Your task to perform on an android device: star an email in the gmail app Image 0: 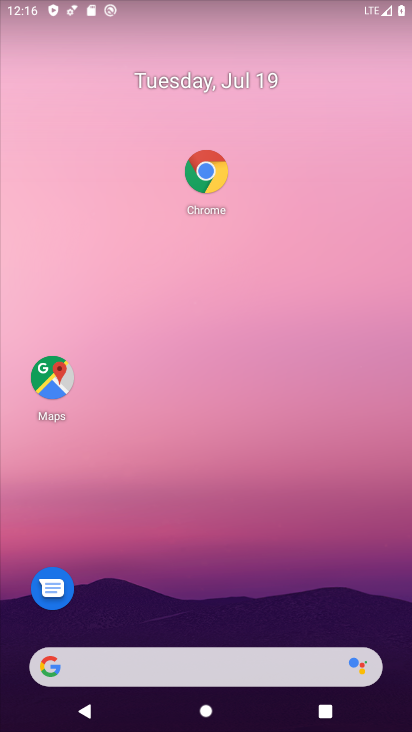
Step 0: drag from (179, 633) to (173, 133)
Your task to perform on an android device: star an email in the gmail app Image 1: 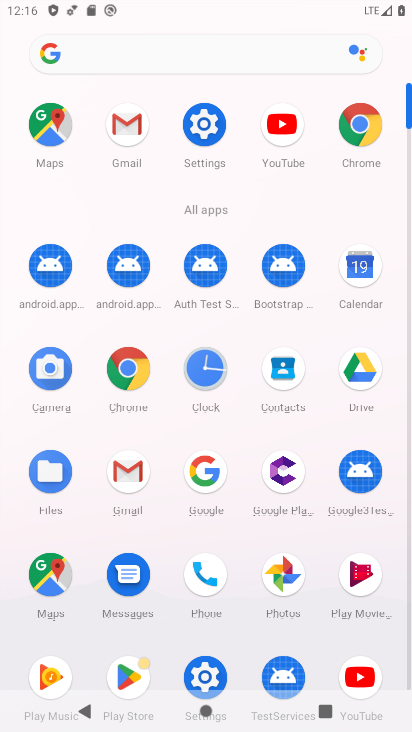
Step 1: click (141, 127)
Your task to perform on an android device: star an email in the gmail app Image 2: 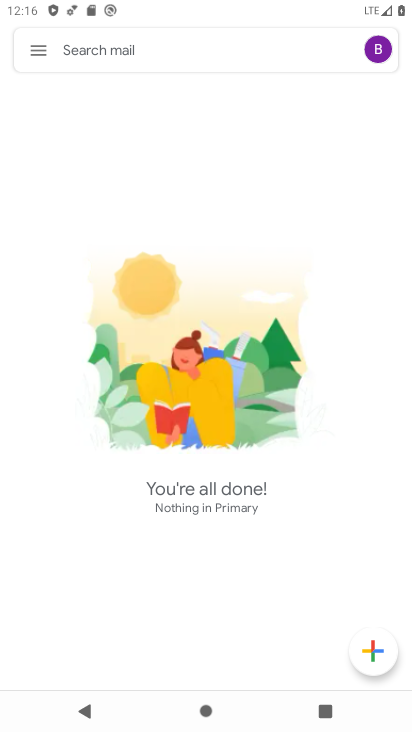
Step 2: click (52, 60)
Your task to perform on an android device: star an email in the gmail app Image 3: 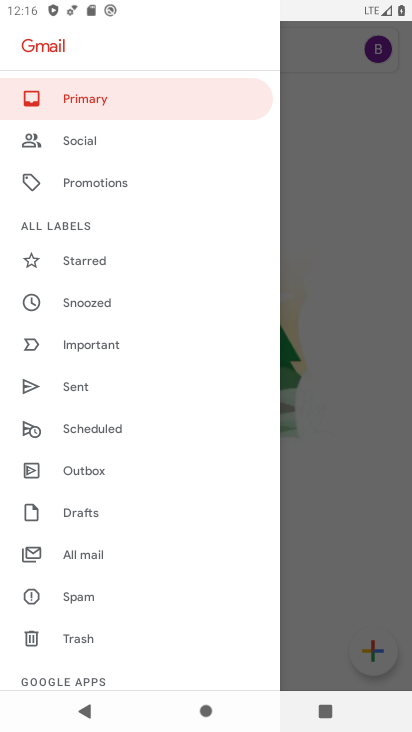
Step 3: click (106, 549)
Your task to perform on an android device: star an email in the gmail app Image 4: 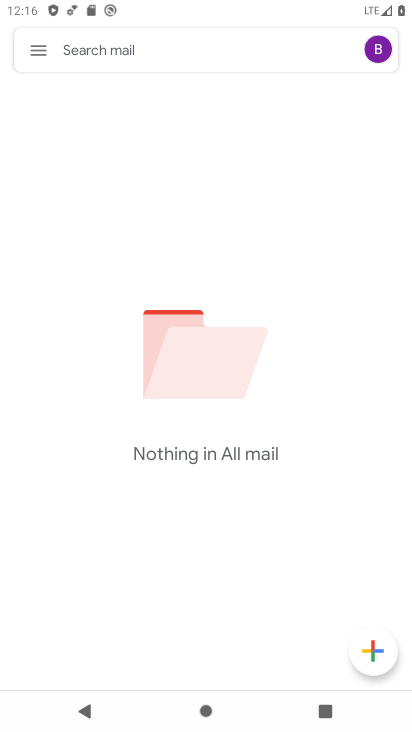
Step 4: task complete